Your task to perform on an android device: Open settings Image 0: 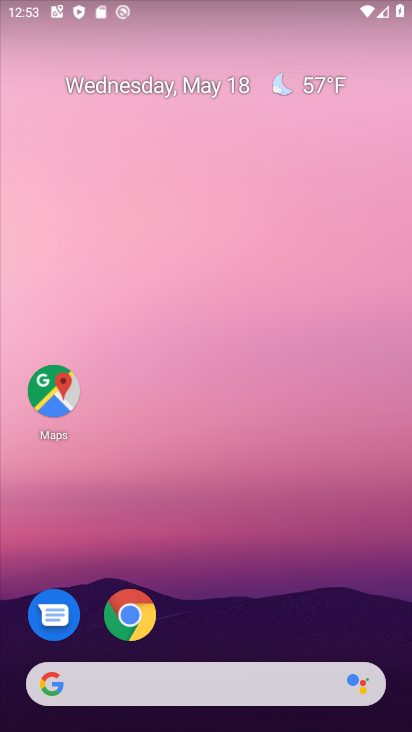
Step 0: drag from (379, 633) to (220, 77)
Your task to perform on an android device: Open settings Image 1: 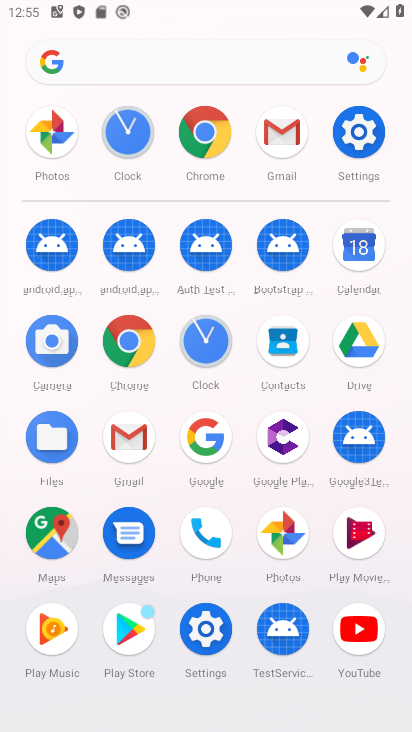
Step 1: click (198, 636)
Your task to perform on an android device: Open settings Image 2: 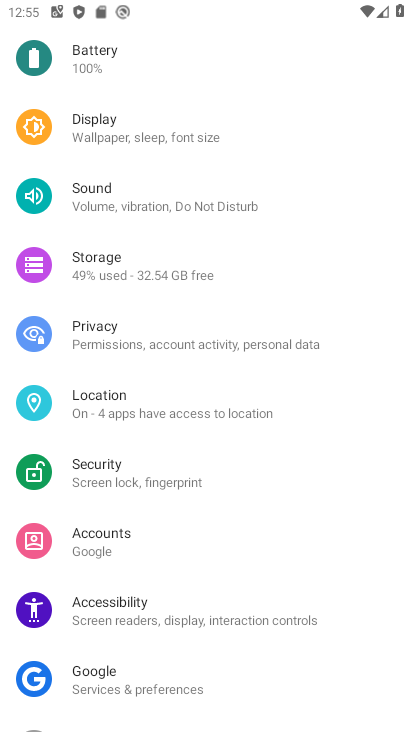
Step 2: task complete